Your task to perform on an android device: turn off data saver in the chrome app Image 0: 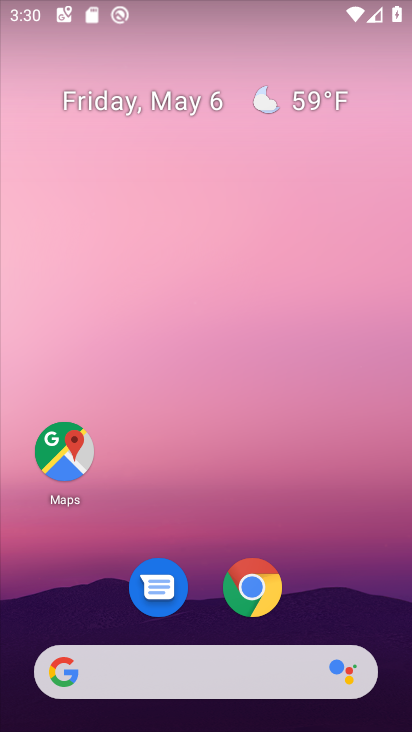
Step 0: drag from (340, 540) to (347, 53)
Your task to perform on an android device: turn off data saver in the chrome app Image 1: 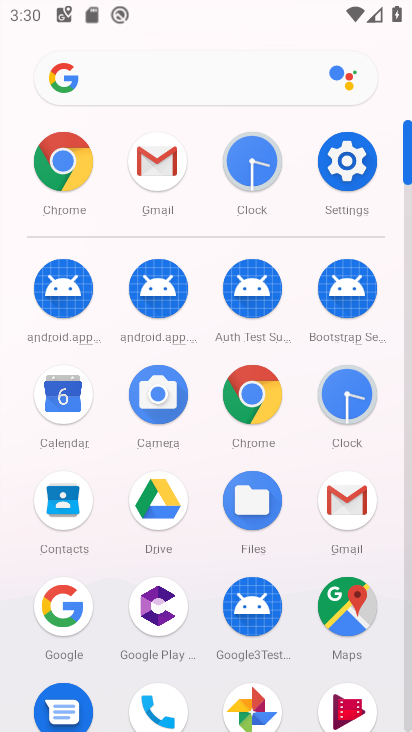
Step 1: click (78, 170)
Your task to perform on an android device: turn off data saver in the chrome app Image 2: 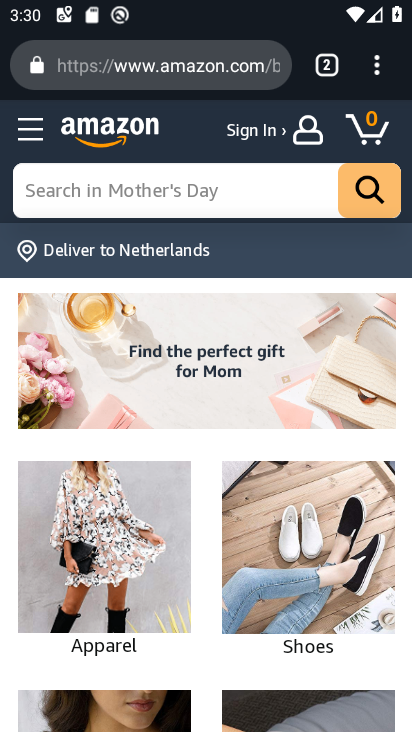
Step 2: drag from (375, 64) to (229, 626)
Your task to perform on an android device: turn off data saver in the chrome app Image 3: 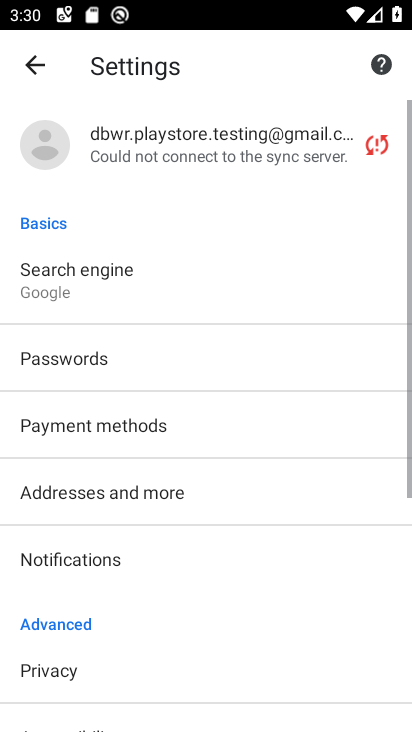
Step 3: drag from (234, 637) to (257, 181)
Your task to perform on an android device: turn off data saver in the chrome app Image 4: 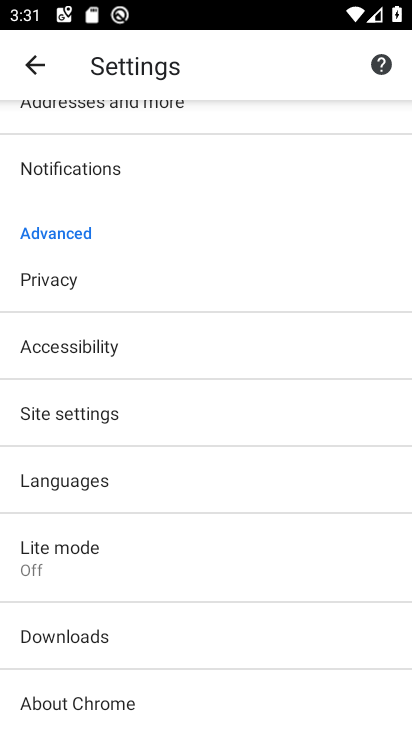
Step 4: click (228, 551)
Your task to perform on an android device: turn off data saver in the chrome app Image 5: 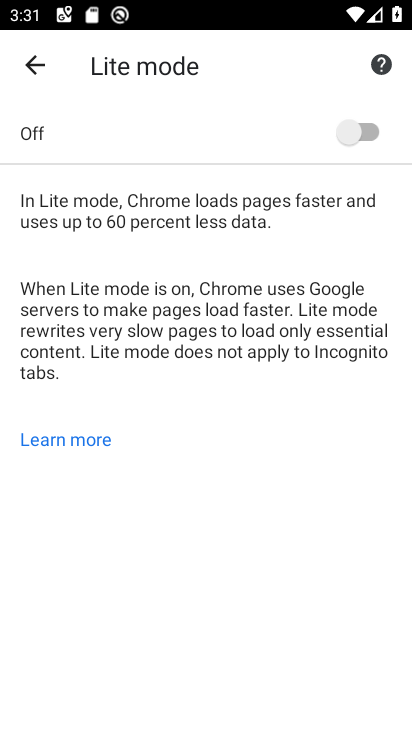
Step 5: task complete